Your task to perform on an android device: turn off improve location accuracy Image 0: 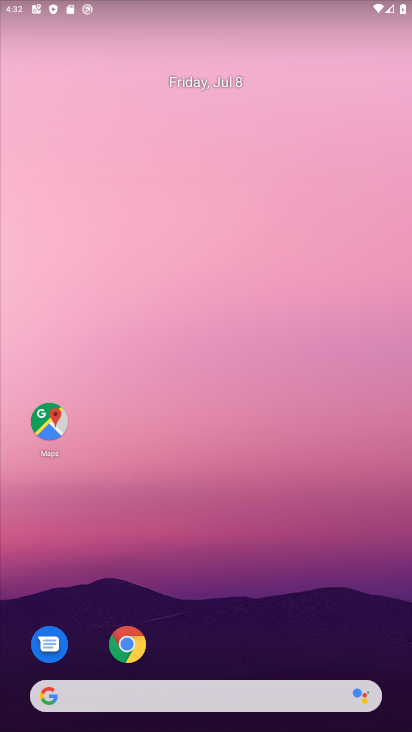
Step 0: drag from (223, 660) to (300, 38)
Your task to perform on an android device: turn off improve location accuracy Image 1: 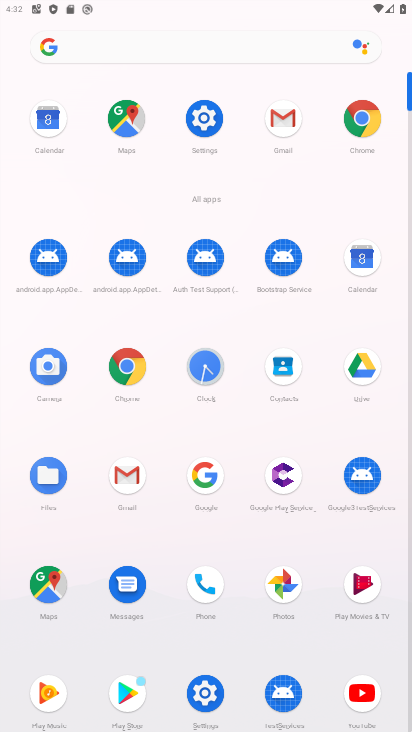
Step 1: click (210, 111)
Your task to perform on an android device: turn off improve location accuracy Image 2: 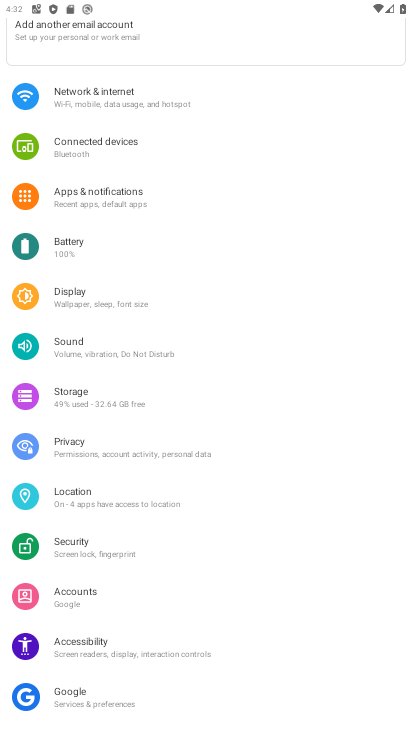
Step 2: click (105, 494)
Your task to perform on an android device: turn off improve location accuracy Image 3: 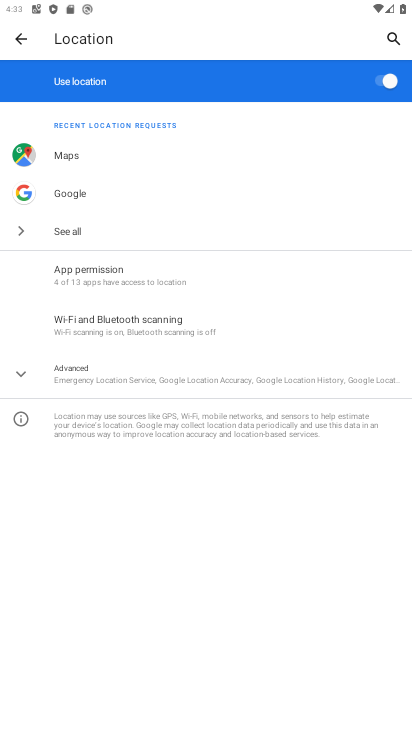
Step 3: click (73, 376)
Your task to perform on an android device: turn off improve location accuracy Image 4: 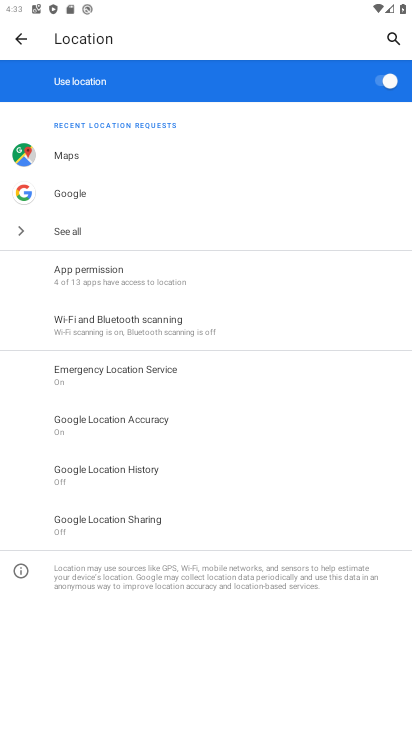
Step 4: click (121, 419)
Your task to perform on an android device: turn off improve location accuracy Image 5: 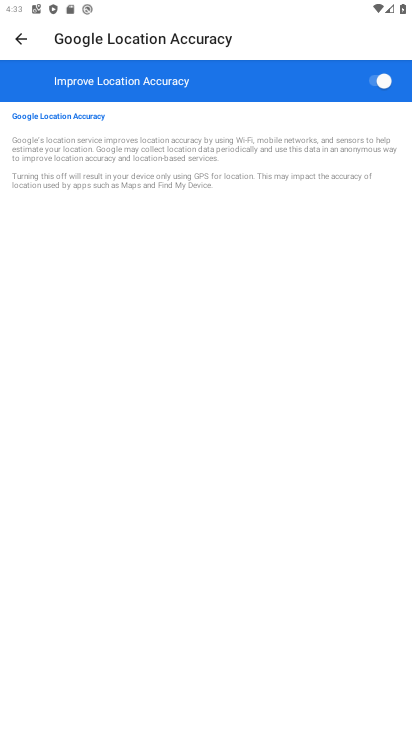
Step 5: click (375, 75)
Your task to perform on an android device: turn off improve location accuracy Image 6: 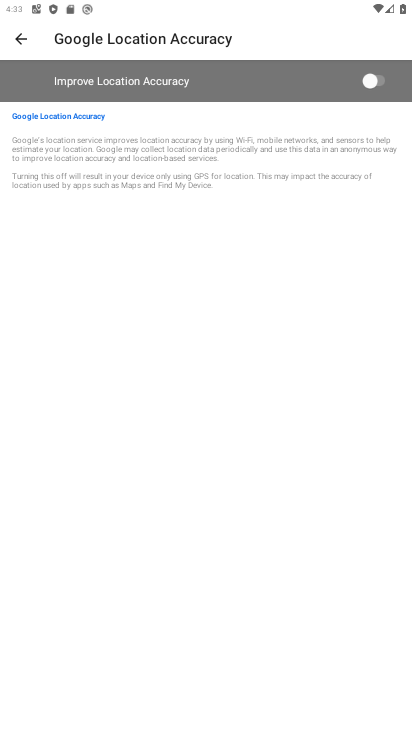
Step 6: task complete